Your task to perform on an android device: Go to accessibility settings Image 0: 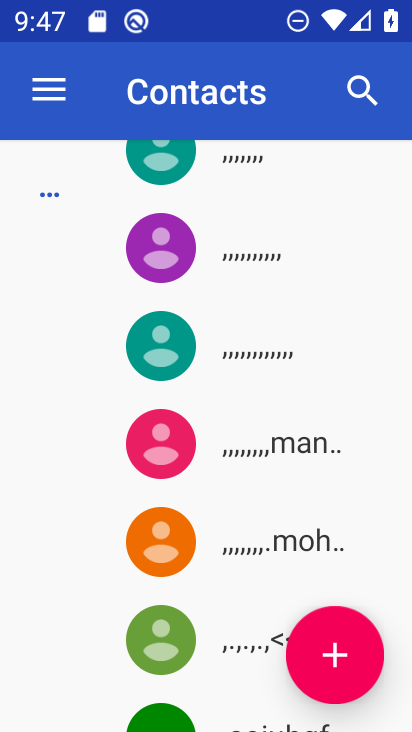
Step 0: press home button
Your task to perform on an android device: Go to accessibility settings Image 1: 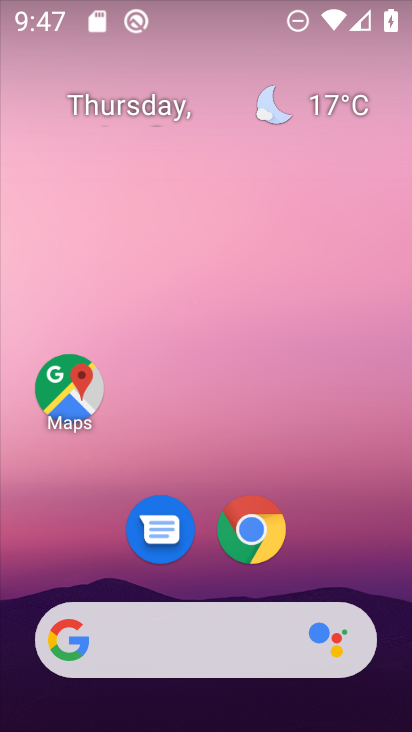
Step 1: drag from (389, 673) to (352, 116)
Your task to perform on an android device: Go to accessibility settings Image 2: 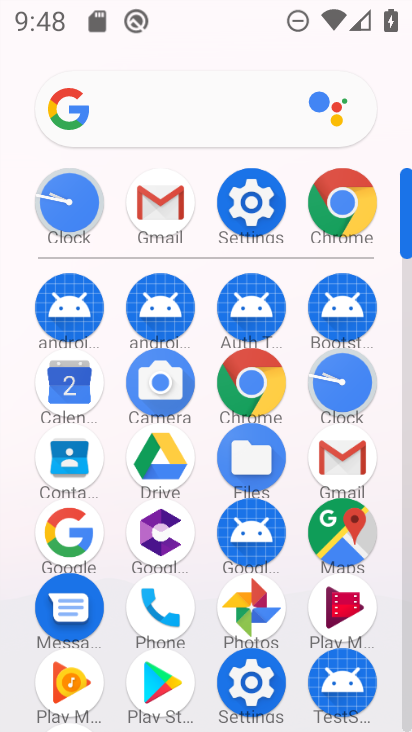
Step 2: click (262, 201)
Your task to perform on an android device: Go to accessibility settings Image 3: 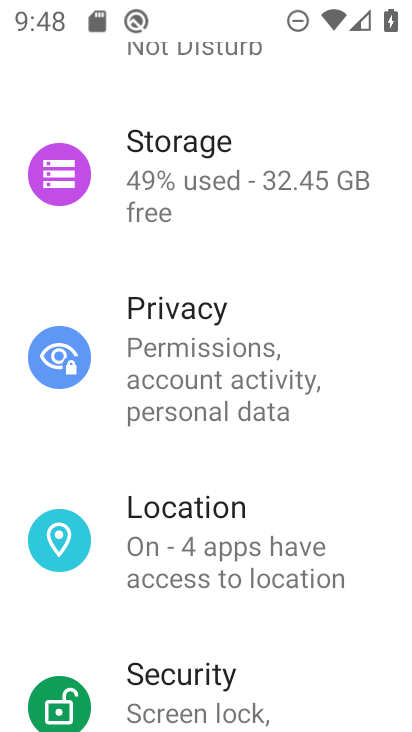
Step 3: drag from (317, 640) to (285, 236)
Your task to perform on an android device: Go to accessibility settings Image 4: 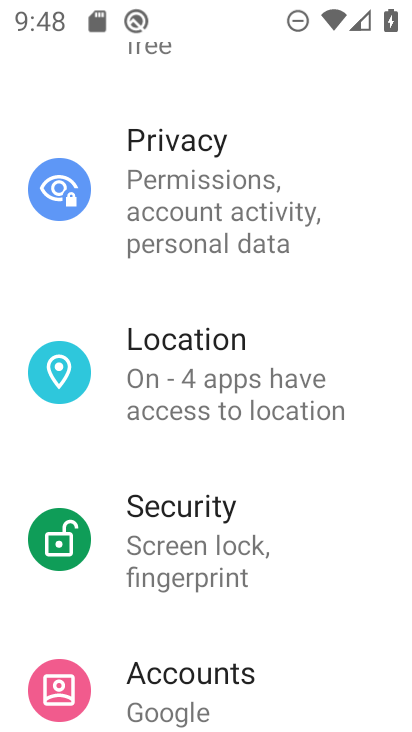
Step 4: drag from (318, 663) to (268, 297)
Your task to perform on an android device: Go to accessibility settings Image 5: 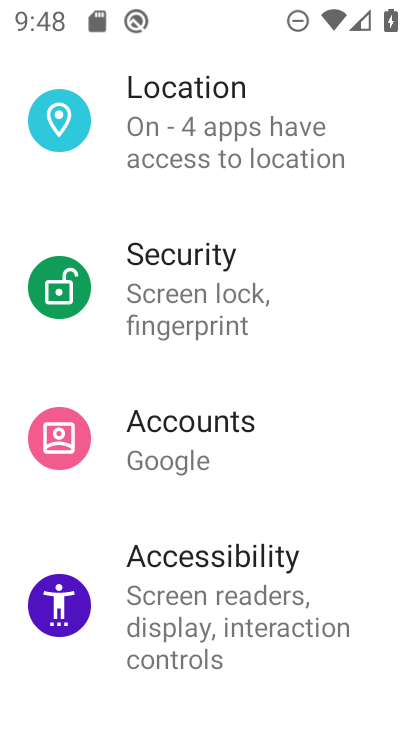
Step 5: click (185, 580)
Your task to perform on an android device: Go to accessibility settings Image 6: 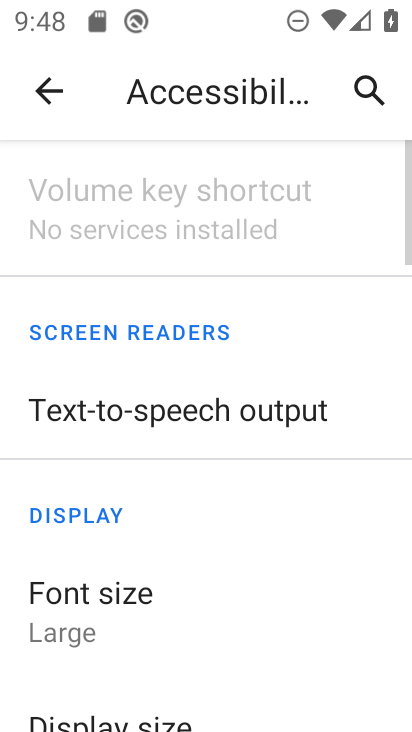
Step 6: task complete